Your task to perform on an android device: change the clock display to analog Image 0: 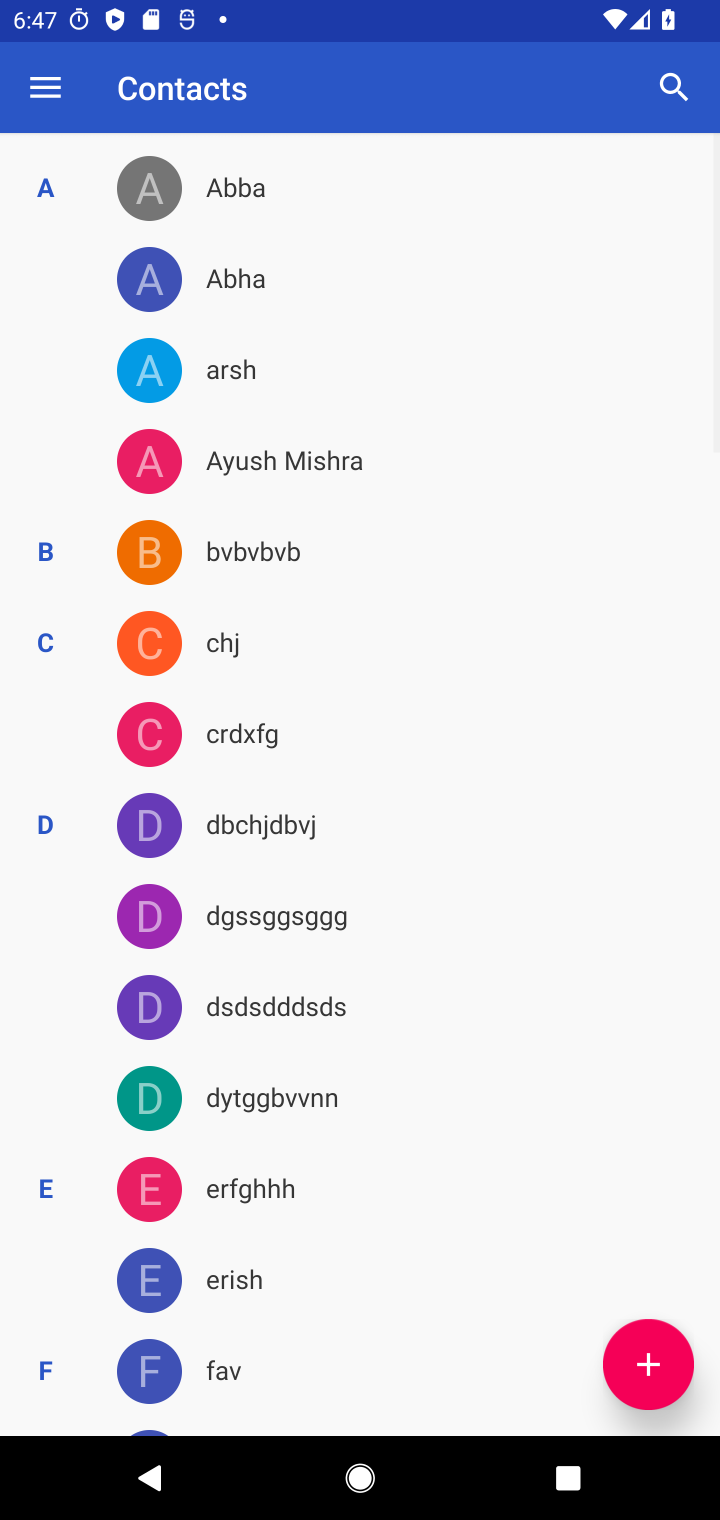
Step 0: press home button
Your task to perform on an android device: change the clock display to analog Image 1: 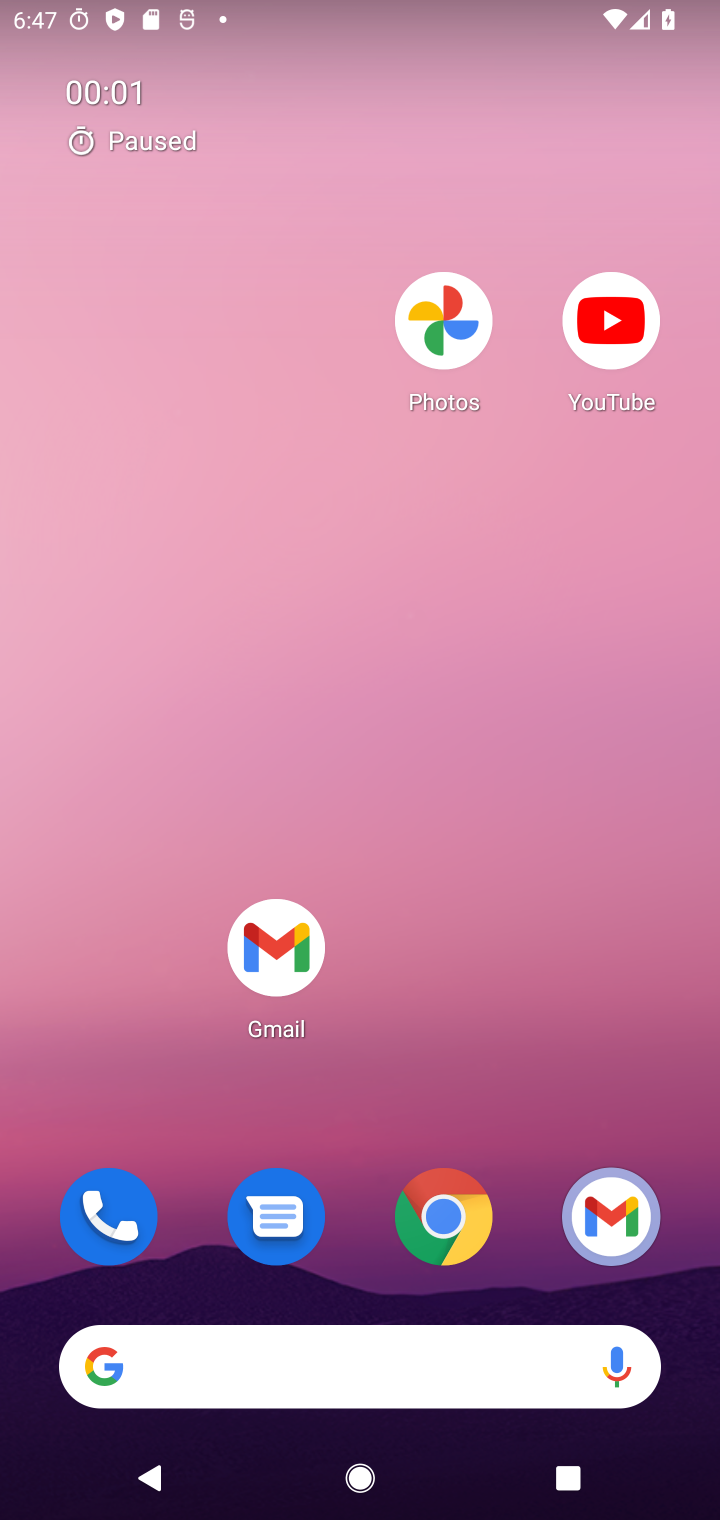
Step 1: drag from (369, 1014) to (363, 210)
Your task to perform on an android device: change the clock display to analog Image 2: 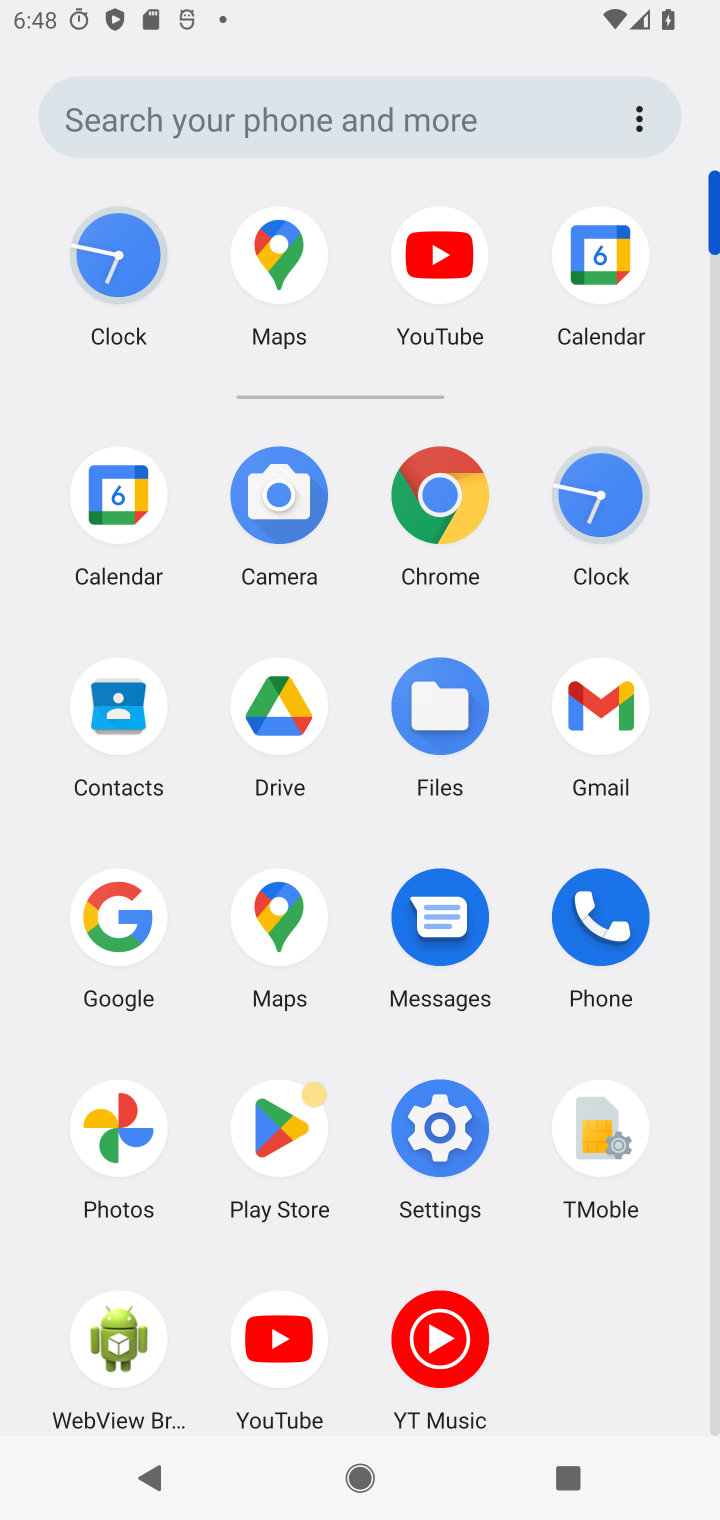
Step 2: click (635, 498)
Your task to perform on an android device: change the clock display to analog Image 3: 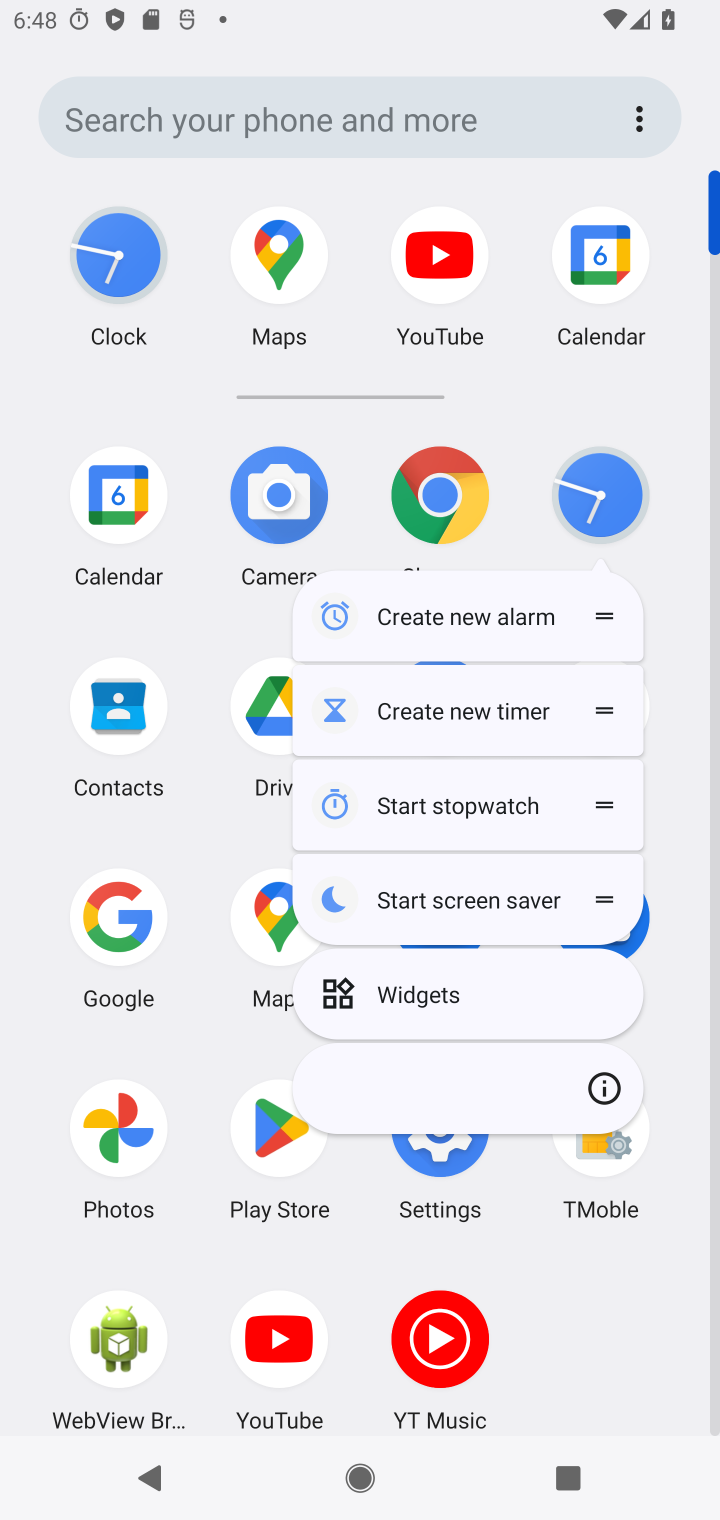
Step 3: click (624, 485)
Your task to perform on an android device: change the clock display to analog Image 4: 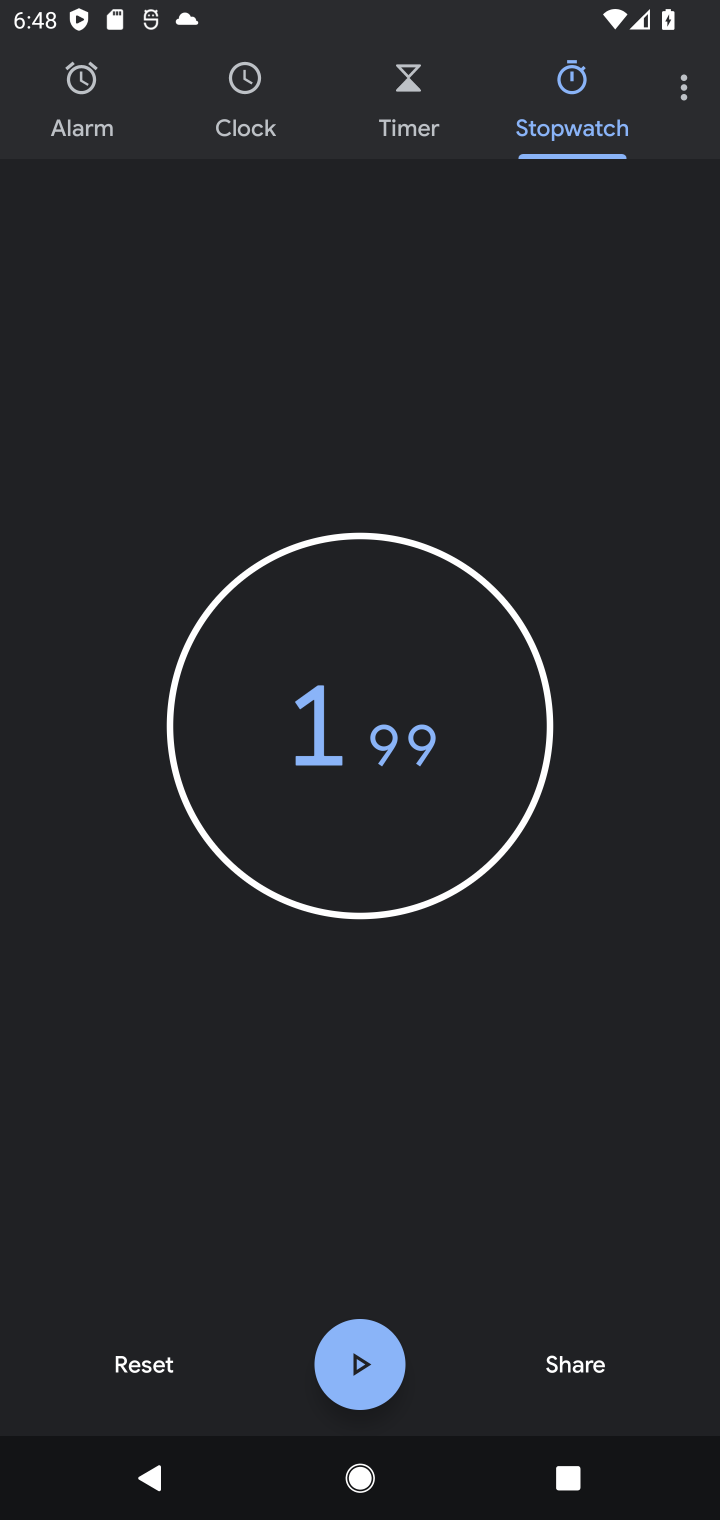
Step 4: click (673, 96)
Your task to perform on an android device: change the clock display to analog Image 5: 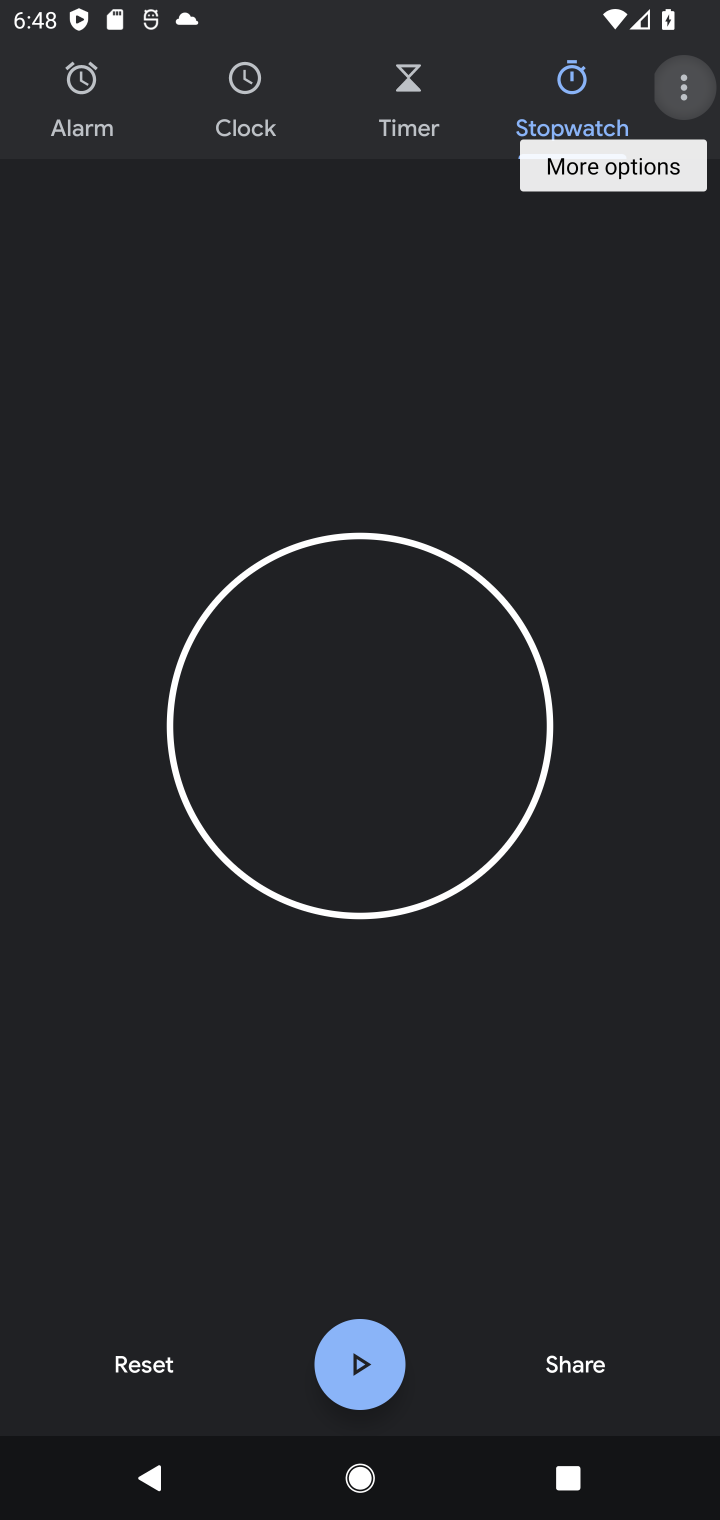
Step 5: click (673, 96)
Your task to perform on an android device: change the clock display to analog Image 6: 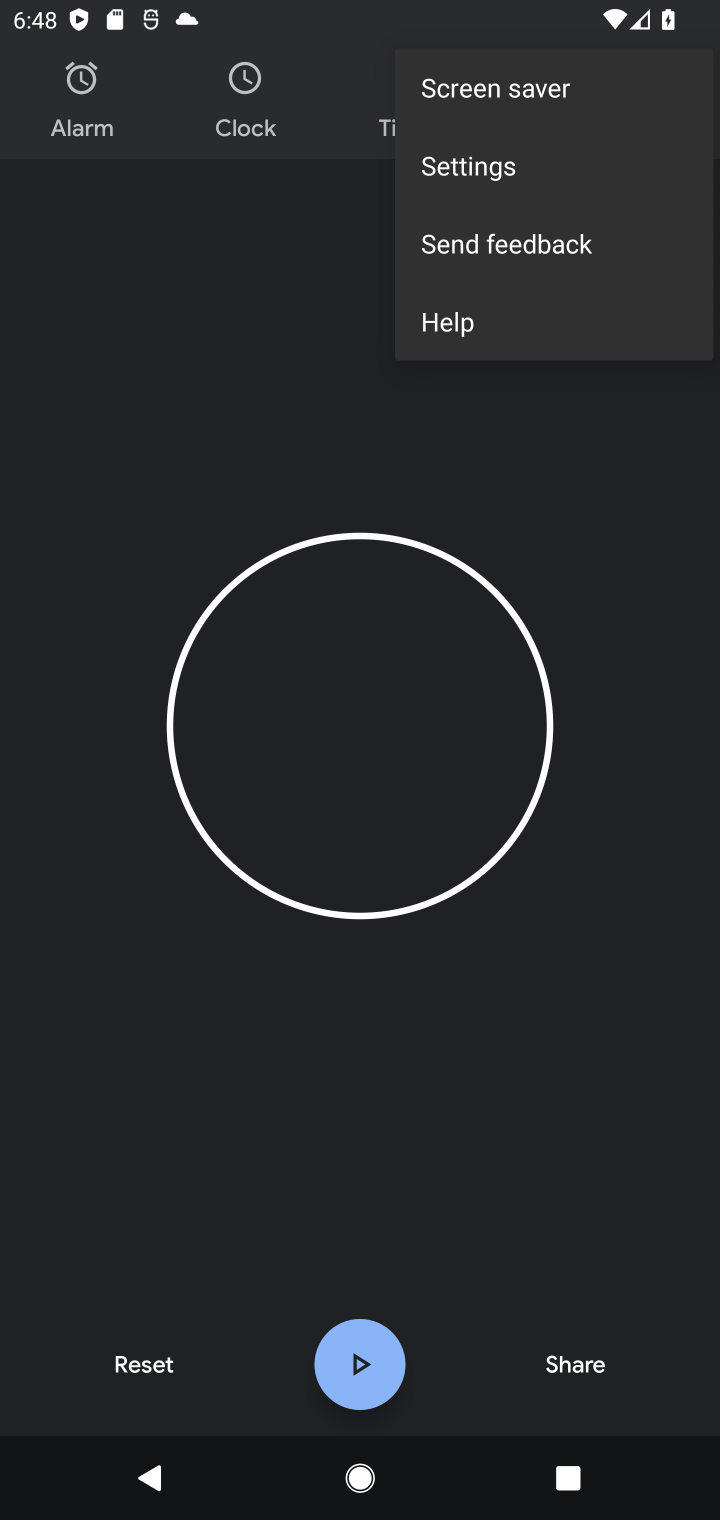
Step 6: click (523, 180)
Your task to perform on an android device: change the clock display to analog Image 7: 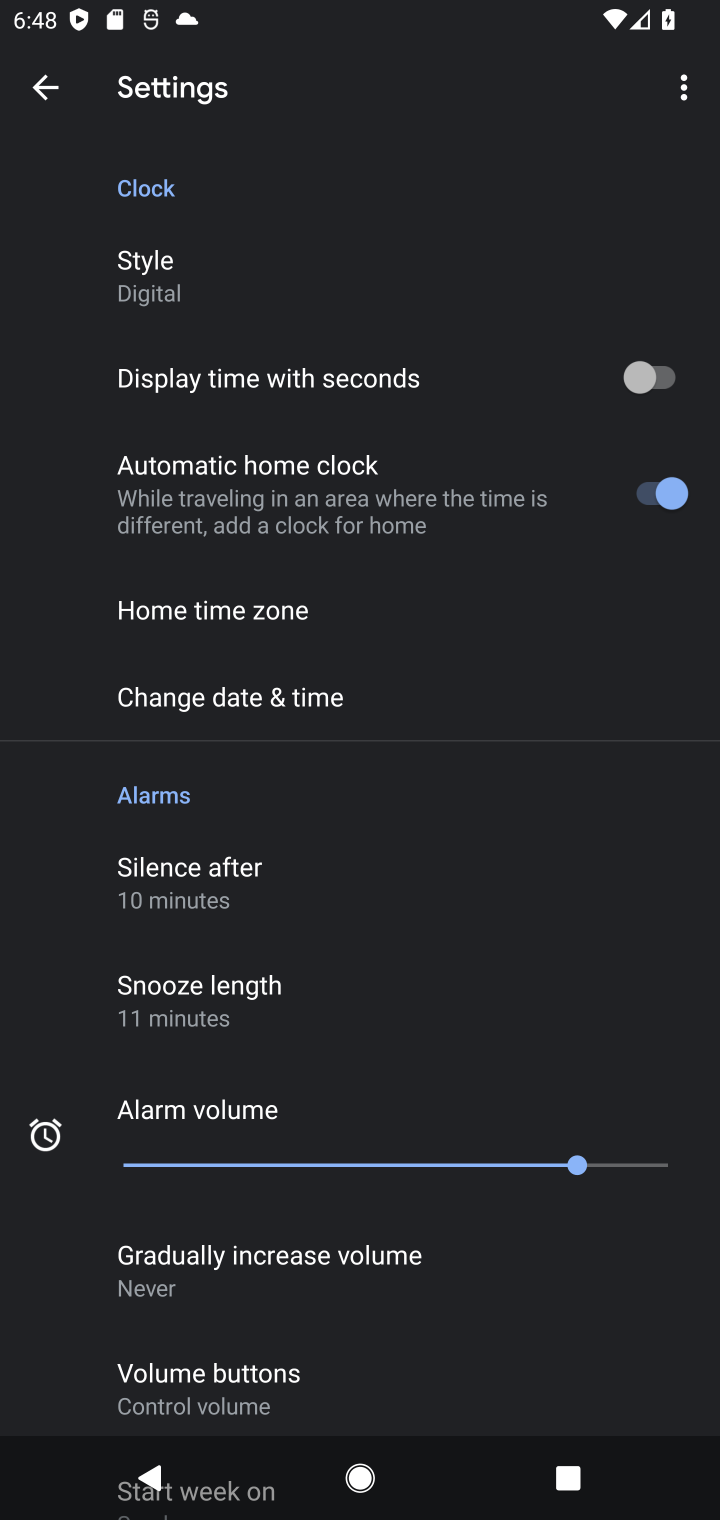
Step 7: click (180, 290)
Your task to perform on an android device: change the clock display to analog Image 8: 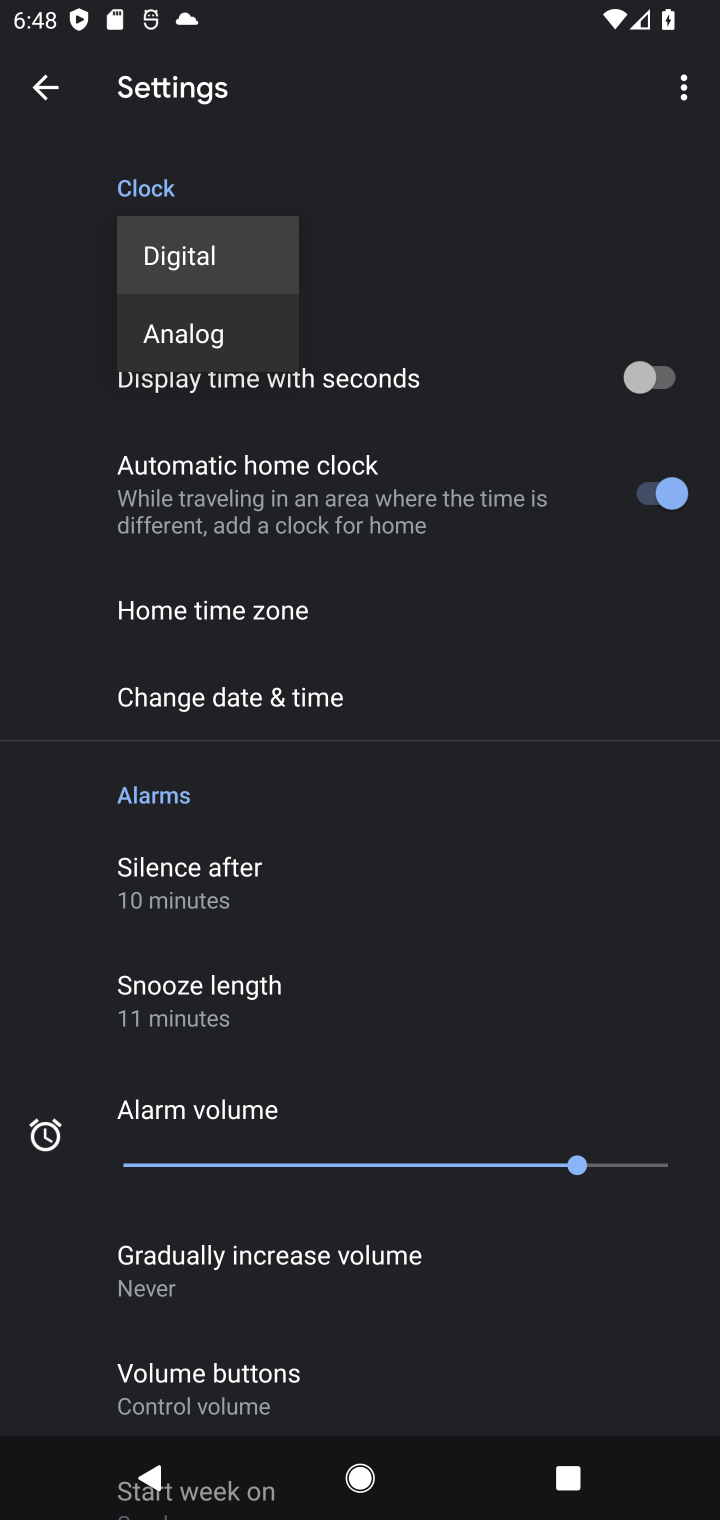
Step 8: click (182, 355)
Your task to perform on an android device: change the clock display to analog Image 9: 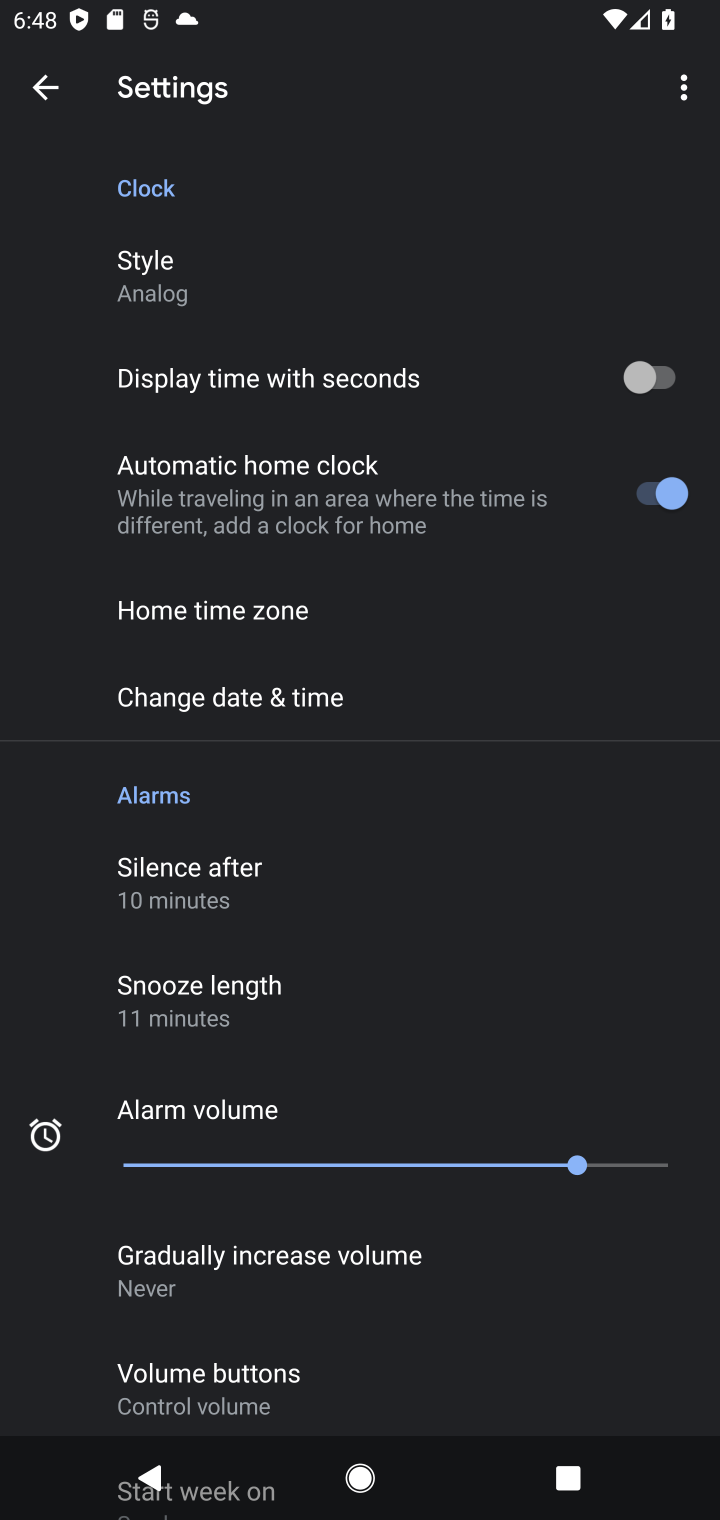
Step 9: task complete